Your task to perform on an android device: Go to Google maps Image 0: 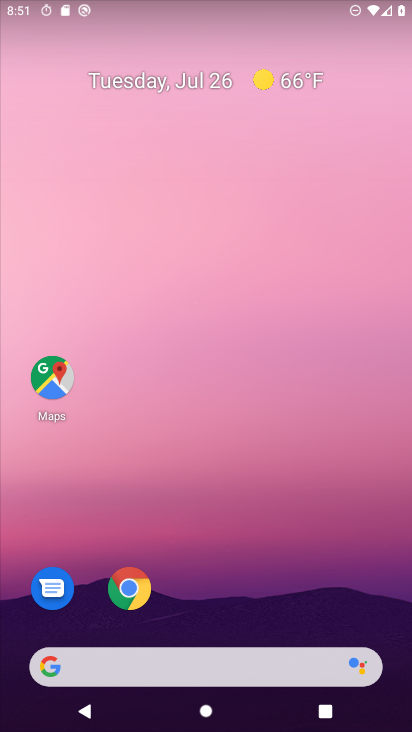
Step 0: drag from (228, 709) to (228, 154)
Your task to perform on an android device: Go to Google maps Image 1: 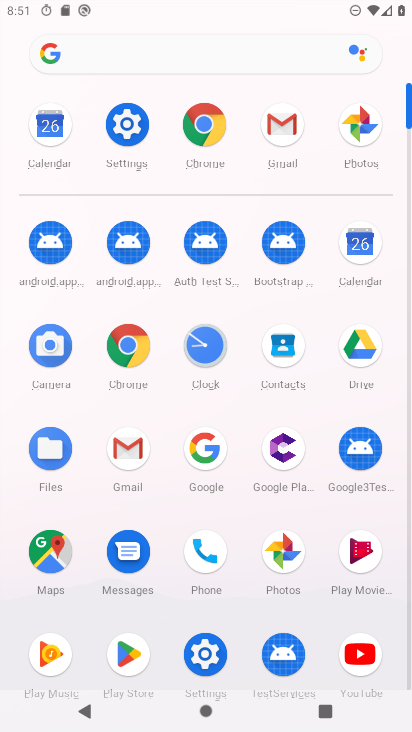
Step 1: click (55, 543)
Your task to perform on an android device: Go to Google maps Image 2: 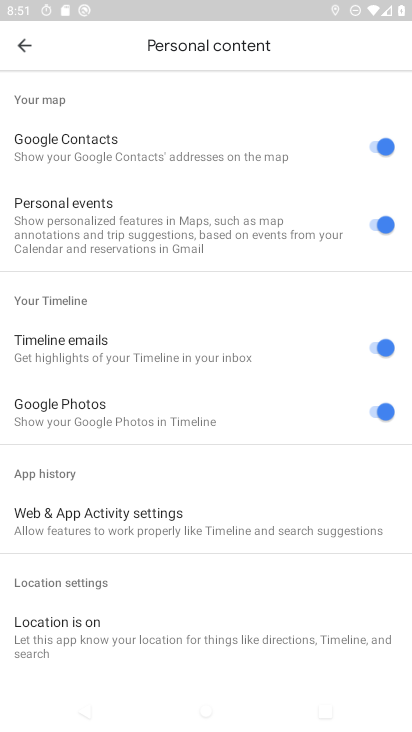
Step 2: click (24, 44)
Your task to perform on an android device: Go to Google maps Image 3: 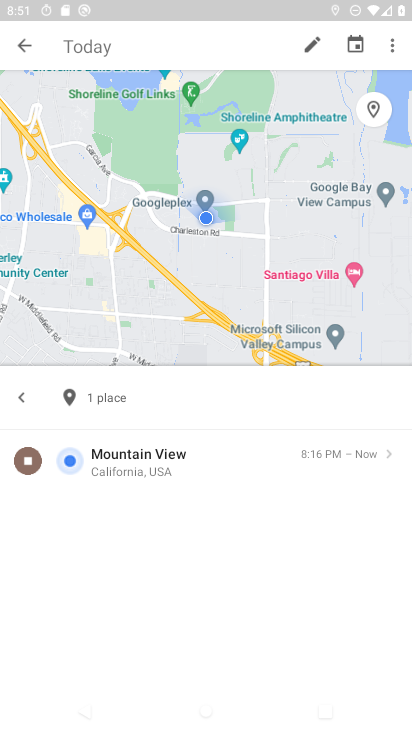
Step 3: task complete